Your task to perform on an android device: change the upload size in google photos Image 0: 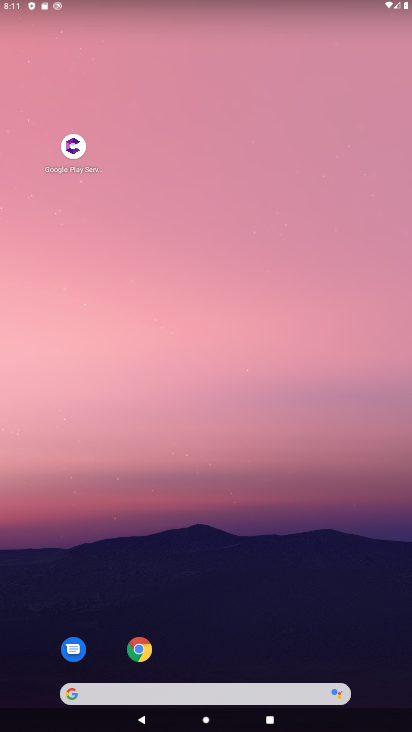
Step 0: drag from (225, 667) to (261, 117)
Your task to perform on an android device: change the upload size in google photos Image 1: 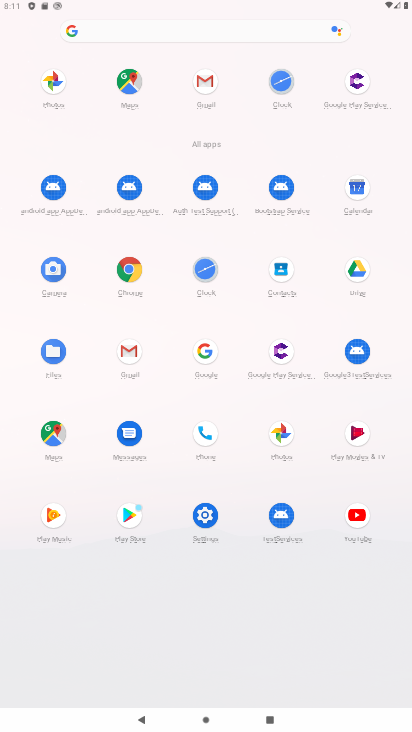
Step 1: click (283, 437)
Your task to perform on an android device: change the upload size in google photos Image 2: 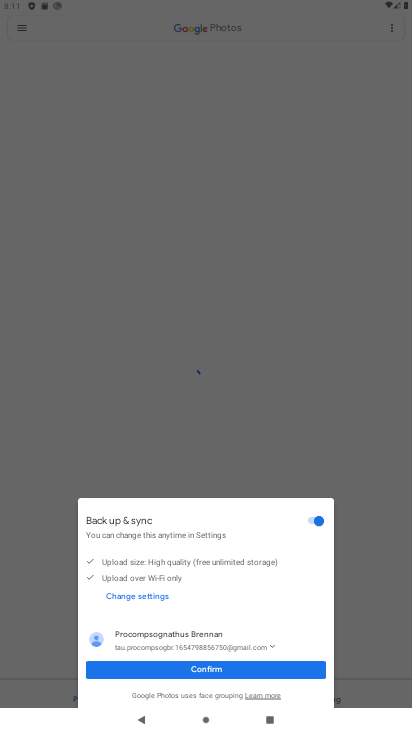
Step 2: click (232, 662)
Your task to perform on an android device: change the upload size in google photos Image 3: 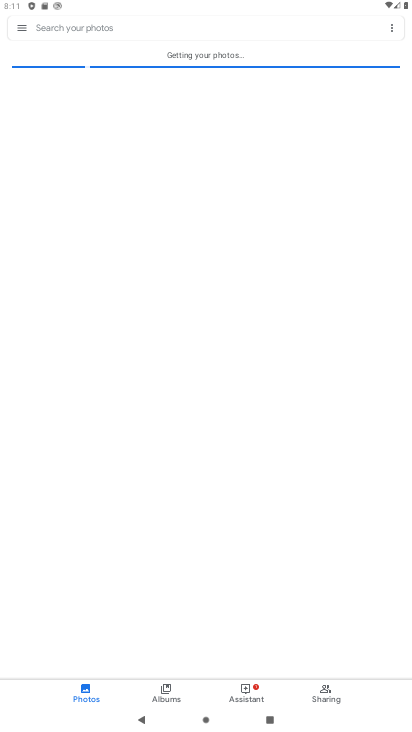
Step 3: click (18, 30)
Your task to perform on an android device: change the upload size in google photos Image 4: 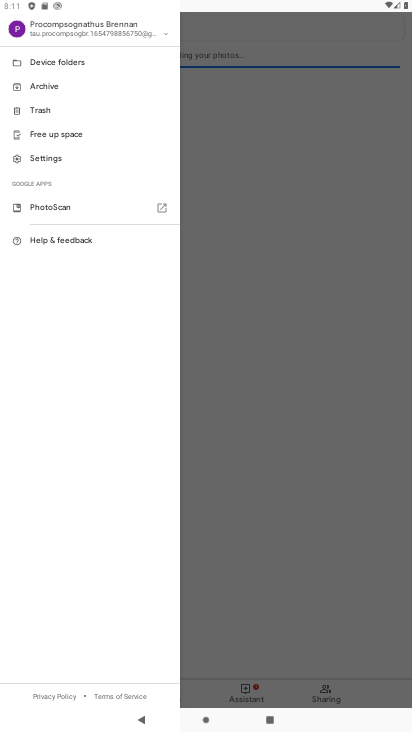
Step 4: click (64, 153)
Your task to perform on an android device: change the upload size in google photos Image 5: 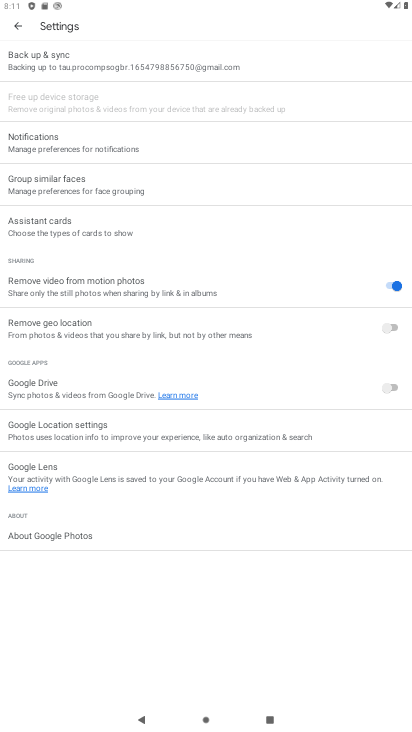
Step 5: click (42, 57)
Your task to perform on an android device: change the upload size in google photos Image 6: 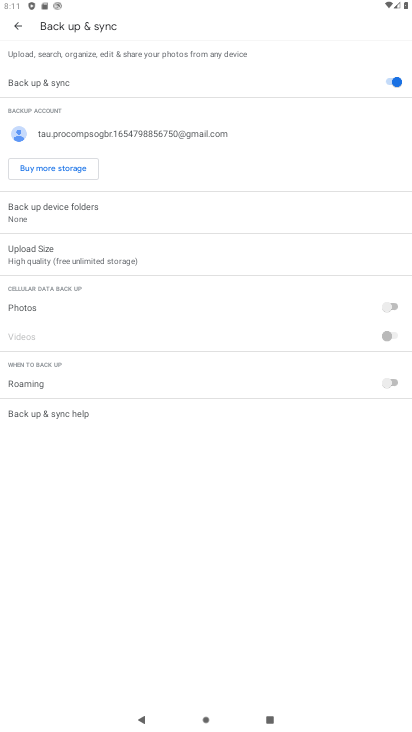
Step 6: click (91, 260)
Your task to perform on an android device: change the upload size in google photos Image 7: 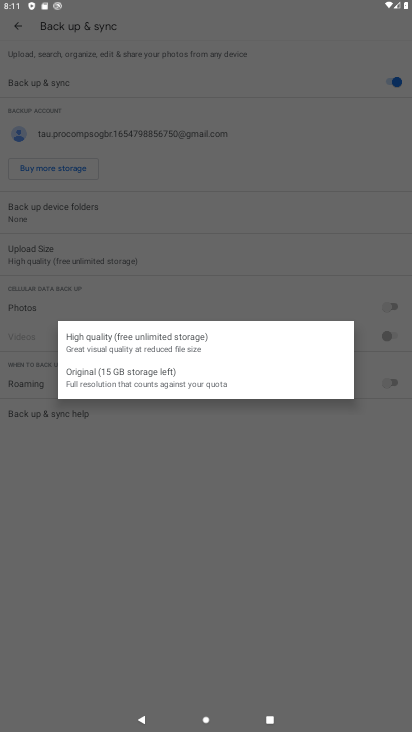
Step 7: click (135, 374)
Your task to perform on an android device: change the upload size in google photos Image 8: 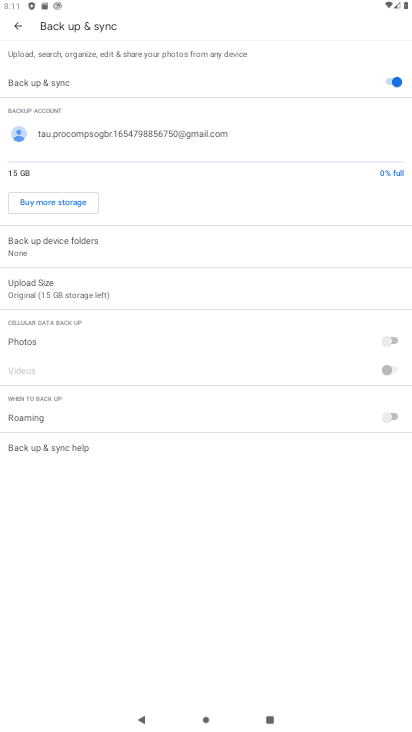
Step 8: task complete